Your task to perform on an android device: visit the assistant section in the google photos Image 0: 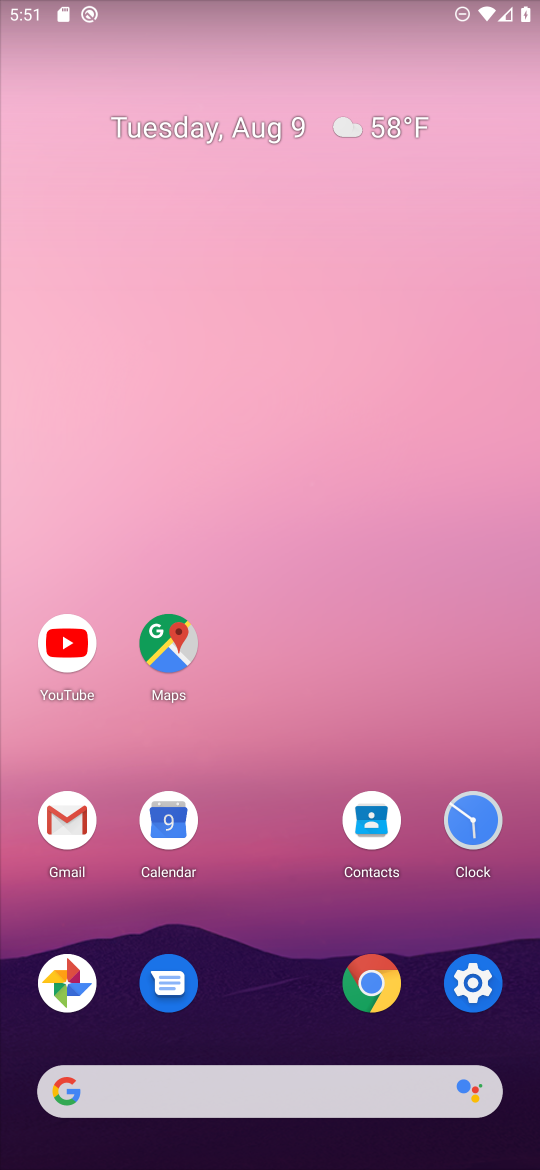
Step 0: click (70, 981)
Your task to perform on an android device: visit the assistant section in the google photos Image 1: 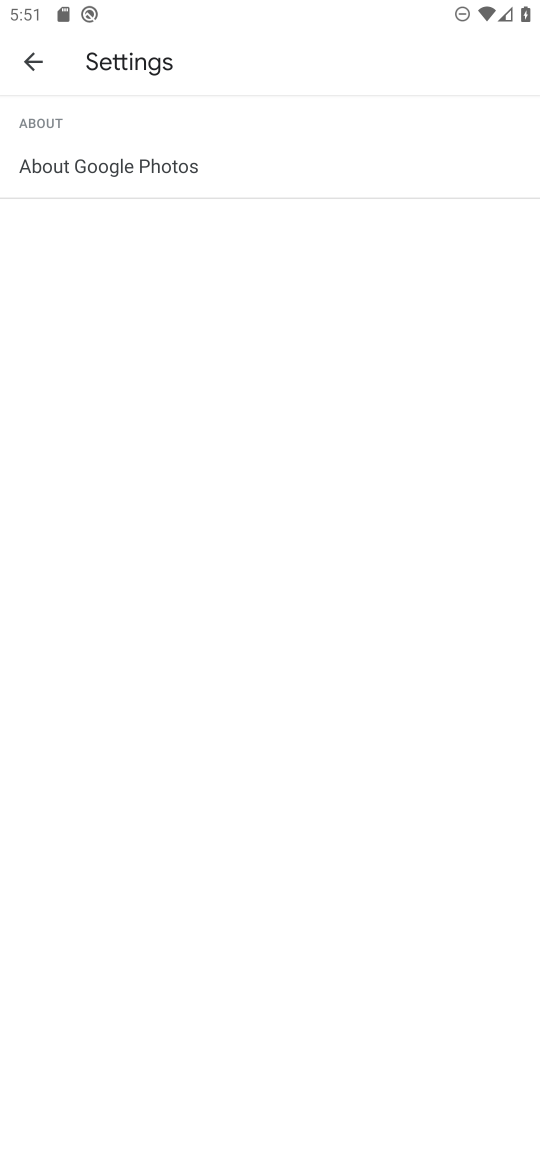
Step 1: click (34, 51)
Your task to perform on an android device: visit the assistant section in the google photos Image 2: 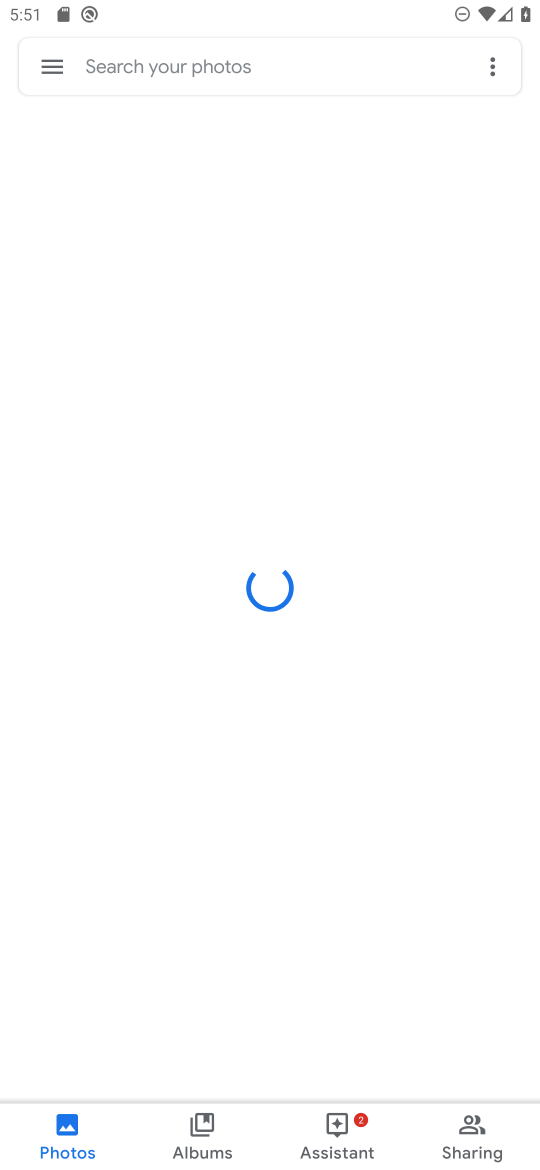
Step 2: click (340, 1115)
Your task to perform on an android device: visit the assistant section in the google photos Image 3: 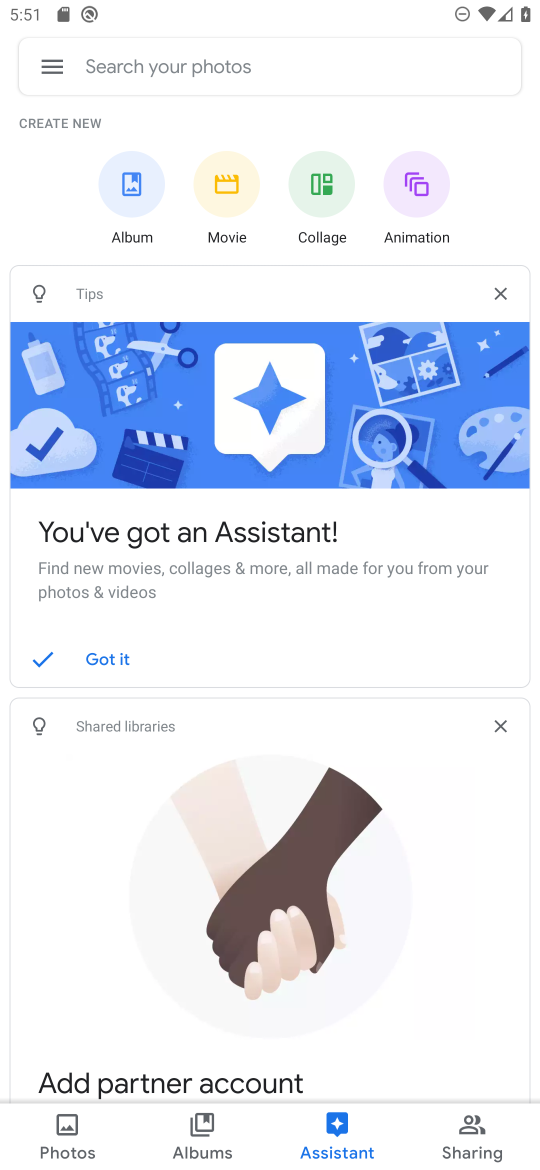
Step 3: task complete